Your task to perform on an android device: When is my next appointment? Image 0: 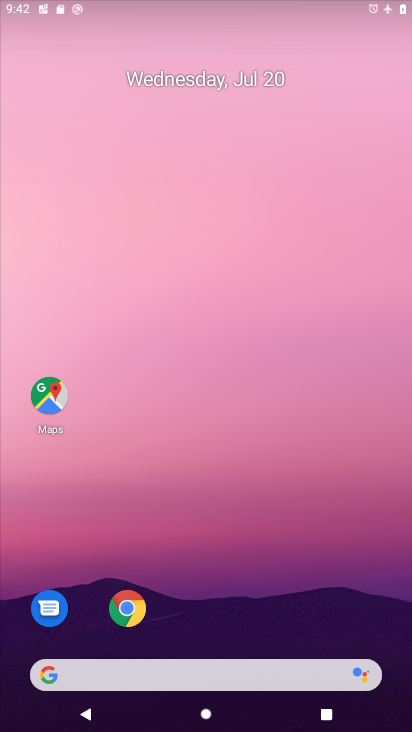
Step 0: drag from (258, 644) to (262, 189)
Your task to perform on an android device: When is my next appointment? Image 1: 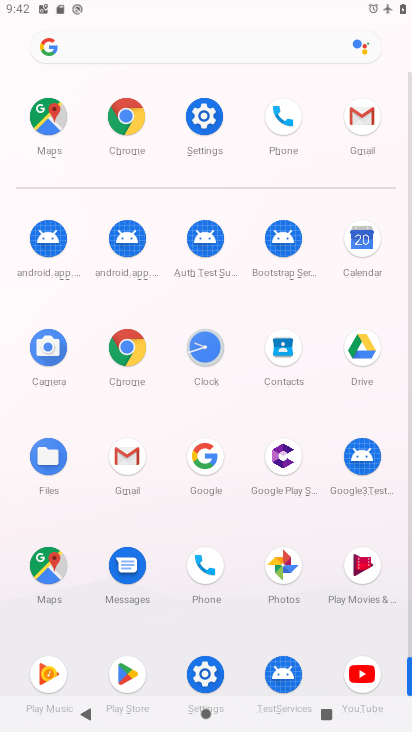
Step 1: click (366, 233)
Your task to perform on an android device: When is my next appointment? Image 2: 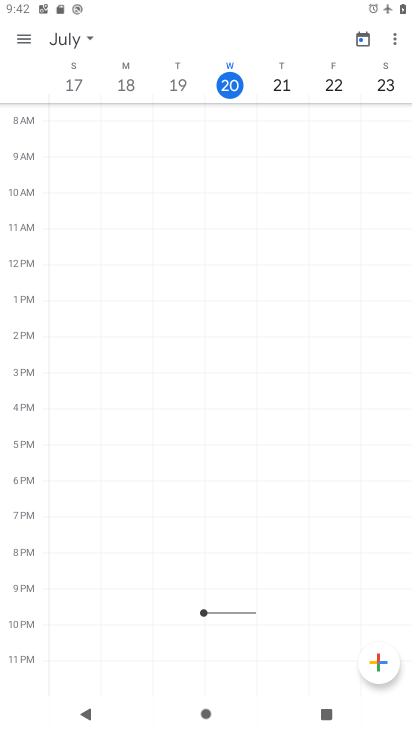
Step 2: click (276, 86)
Your task to perform on an android device: When is my next appointment? Image 3: 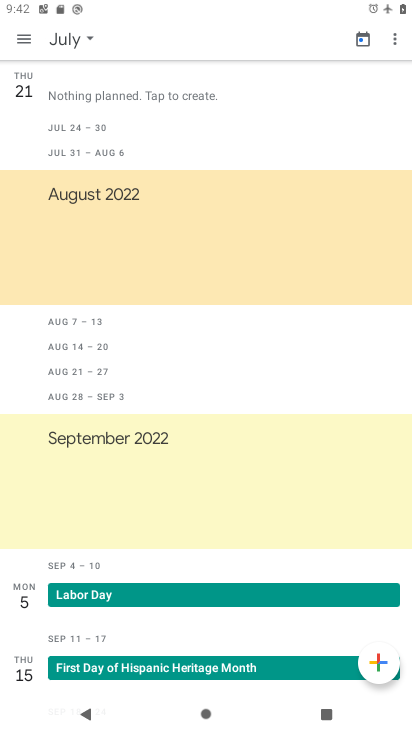
Step 3: task complete